Your task to perform on an android device: Search for "macbook pro" on ebay.com, select the first entry, and add it to the cart. Image 0: 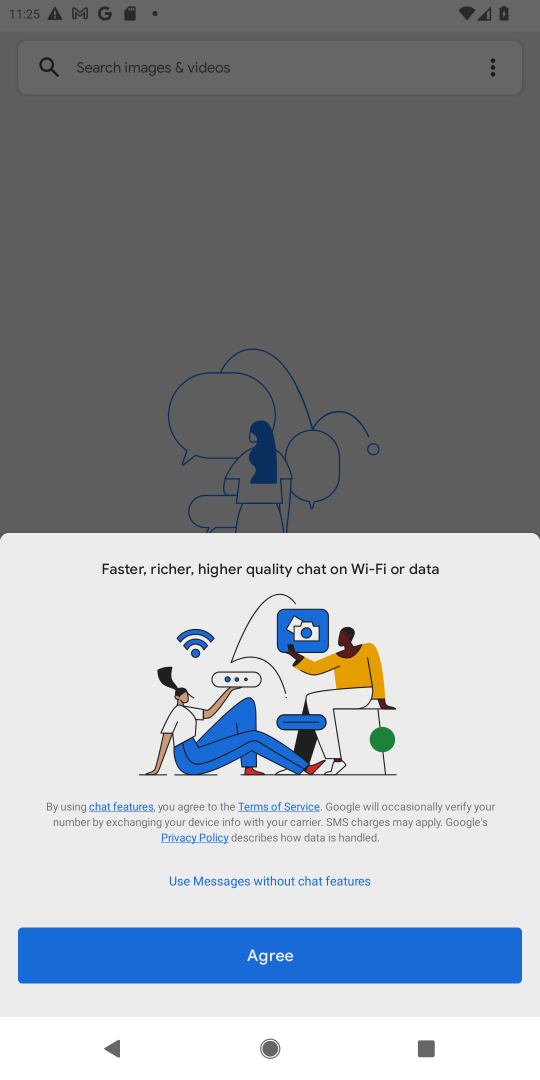
Step 0: press home button
Your task to perform on an android device: Search for "macbook pro" on ebay.com, select the first entry, and add it to the cart. Image 1: 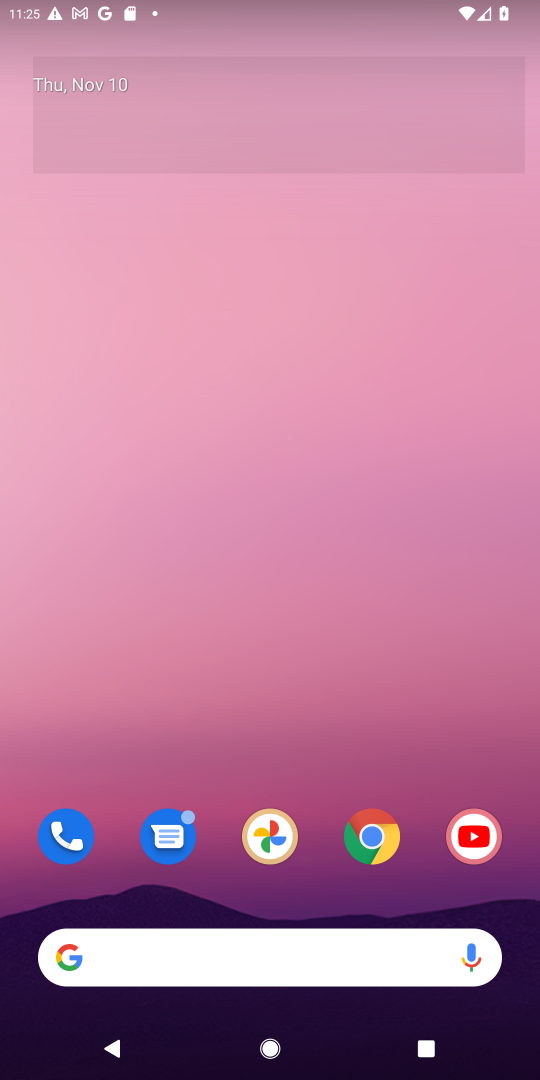
Step 1: click (244, 950)
Your task to perform on an android device: Search for "macbook pro" on ebay.com, select the first entry, and add it to the cart. Image 2: 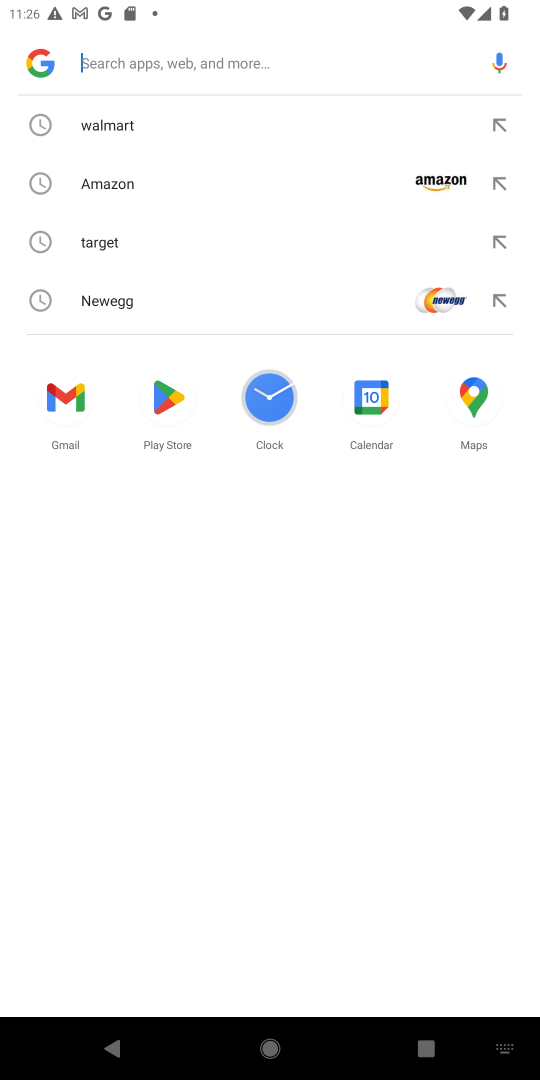
Step 2: press home button
Your task to perform on an android device: Search for "macbook pro" on ebay.com, select the first entry, and add it to the cart. Image 3: 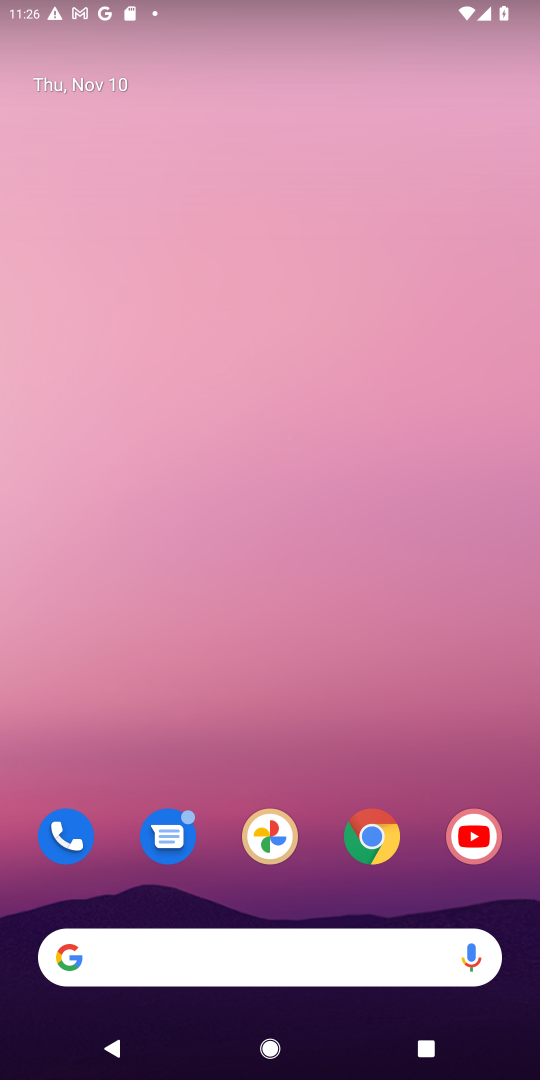
Step 3: click (237, 961)
Your task to perform on an android device: Search for "macbook pro" on ebay.com, select the first entry, and add it to the cart. Image 4: 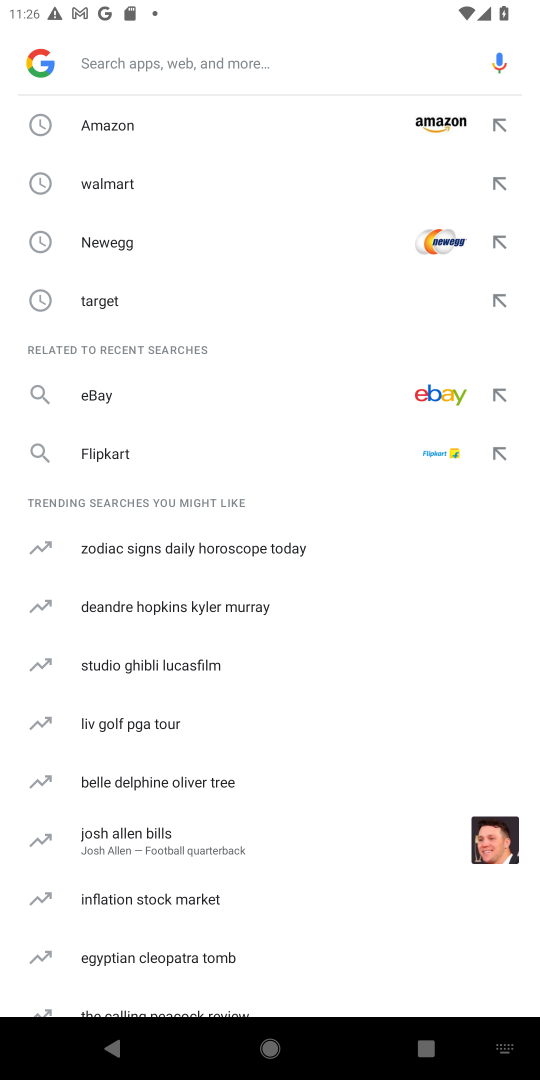
Step 4: click (100, 395)
Your task to perform on an android device: Search for "macbook pro" on ebay.com, select the first entry, and add it to the cart. Image 5: 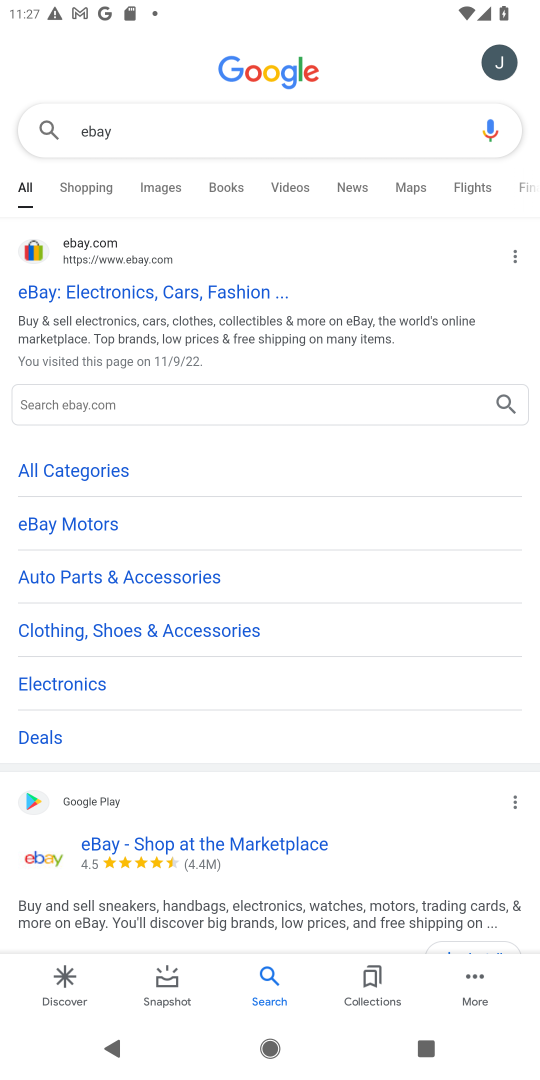
Step 5: click (81, 253)
Your task to perform on an android device: Search for "macbook pro" on ebay.com, select the first entry, and add it to the cart. Image 6: 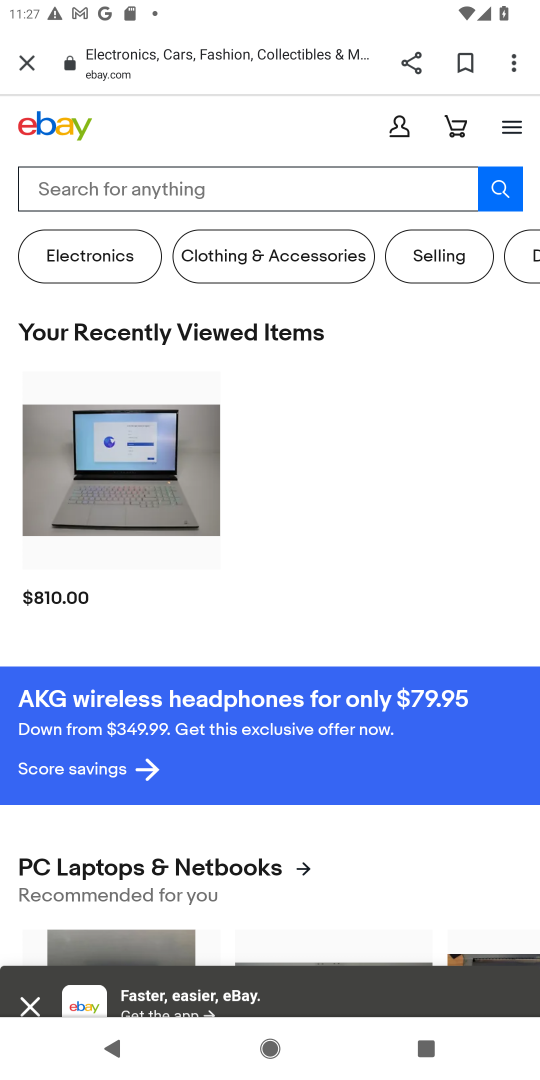
Step 6: click (200, 182)
Your task to perform on an android device: Search for "macbook pro" on ebay.com, select the first entry, and add it to the cart. Image 7: 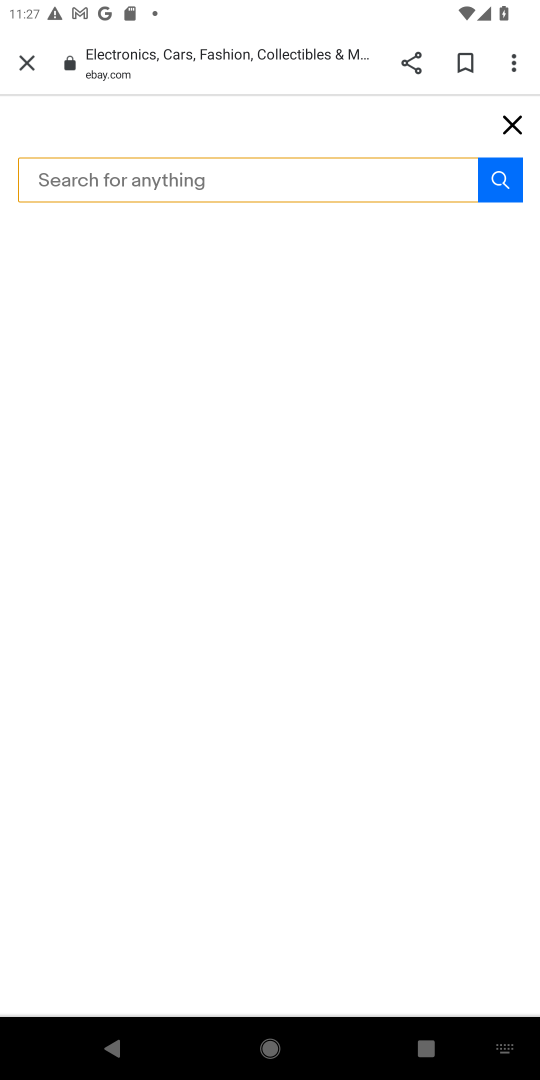
Step 7: type "macbook pro"
Your task to perform on an android device: Search for "macbook pro" on ebay.com, select the first entry, and add it to the cart. Image 8: 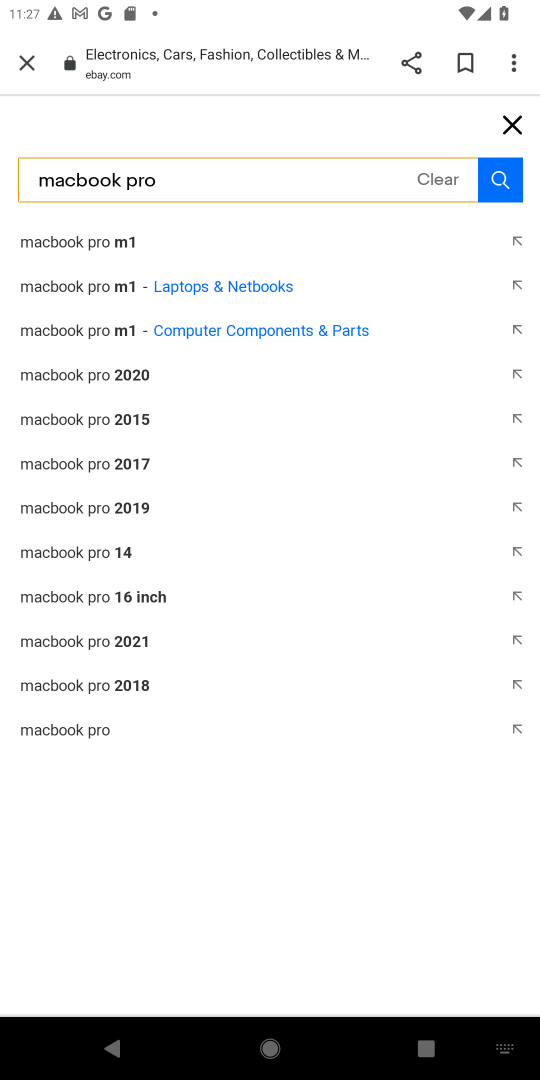
Step 8: click (58, 726)
Your task to perform on an android device: Search for "macbook pro" on ebay.com, select the first entry, and add it to the cart. Image 9: 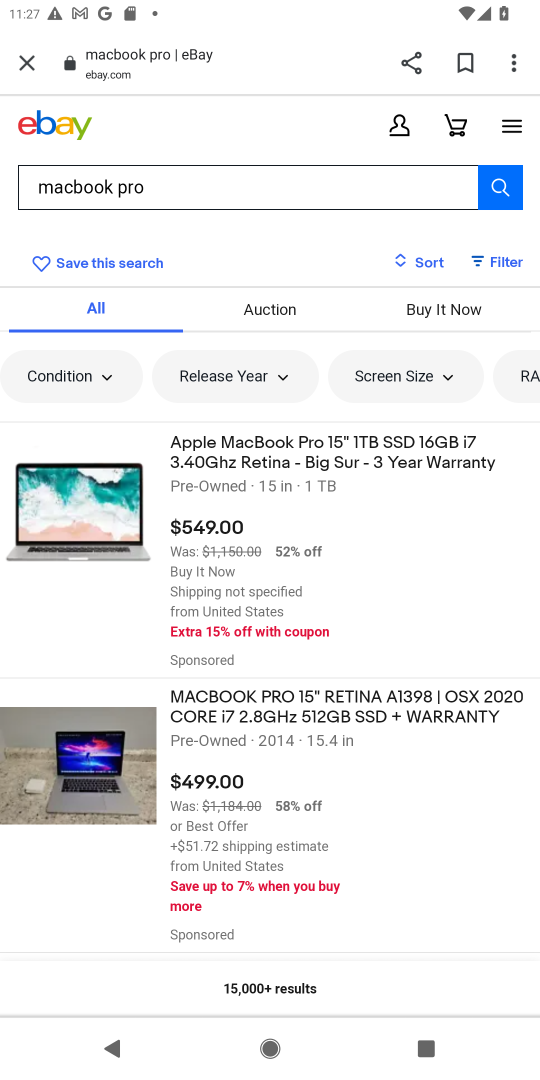
Step 9: click (261, 466)
Your task to perform on an android device: Search for "macbook pro" on ebay.com, select the first entry, and add it to the cart. Image 10: 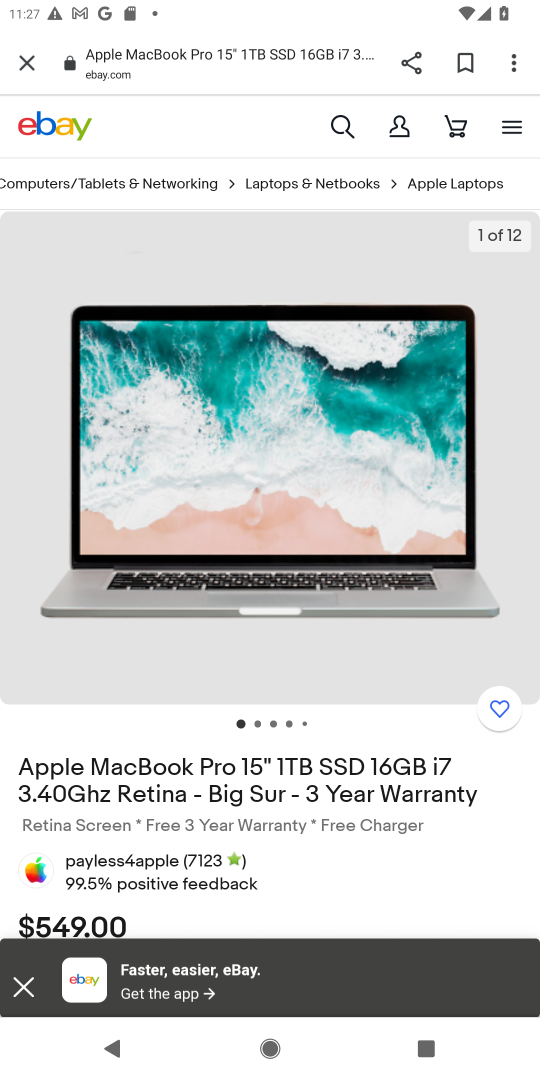
Step 10: drag from (340, 793) to (269, 372)
Your task to perform on an android device: Search for "macbook pro" on ebay.com, select the first entry, and add it to the cart. Image 11: 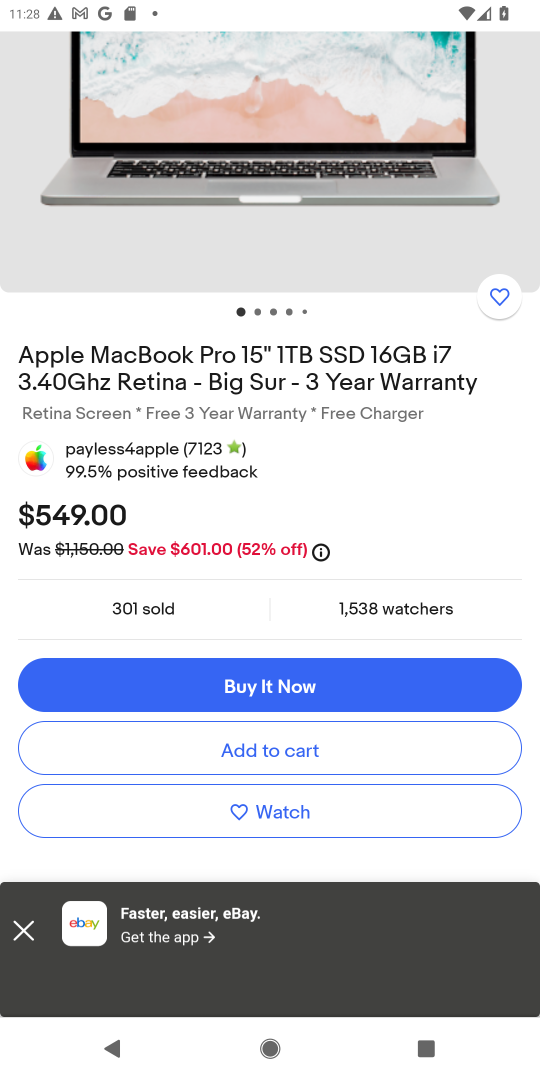
Step 11: click (260, 747)
Your task to perform on an android device: Search for "macbook pro" on ebay.com, select the first entry, and add it to the cart. Image 12: 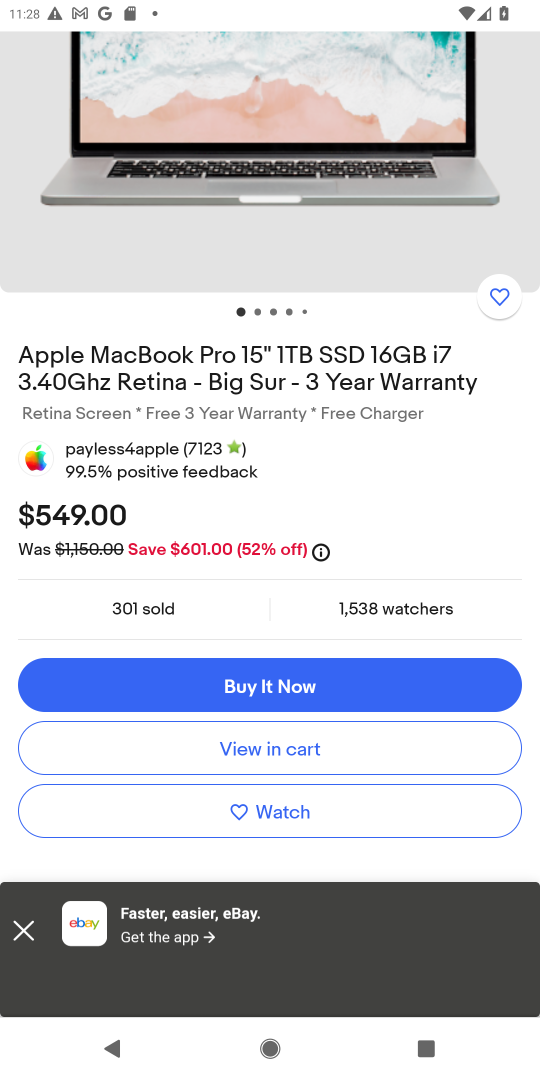
Step 12: task complete